Your task to perform on an android device: Search for pizza restaurants on Maps Image 0: 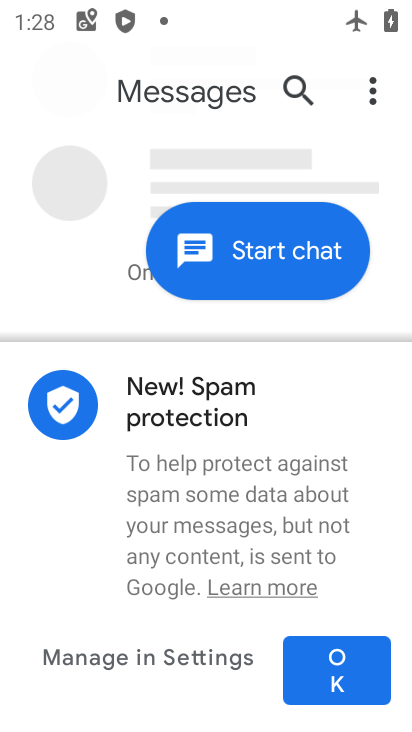
Step 0: press home button
Your task to perform on an android device: Search for pizza restaurants on Maps Image 1: 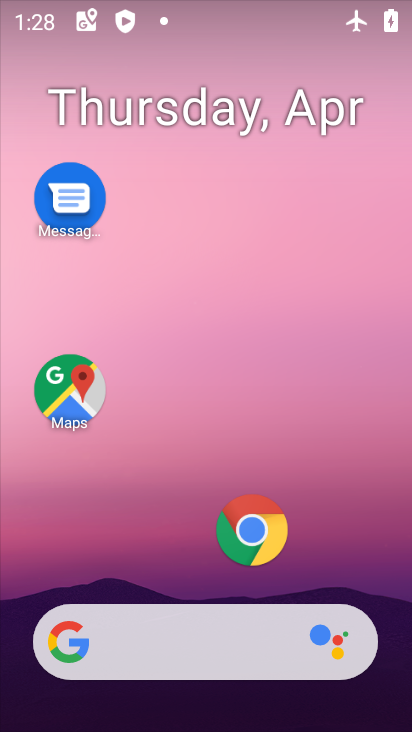
Step 1: click (81, 407)
Your task to perform on an android device: Search for pizza restaurants on Maps Image 2: 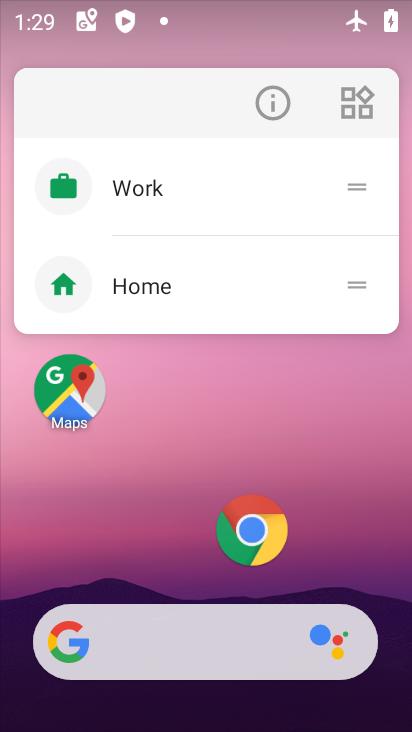
Step 2: click (69, 394)
Your task to perform on an android device: Search for pizza restaurants on Maps Image 3: 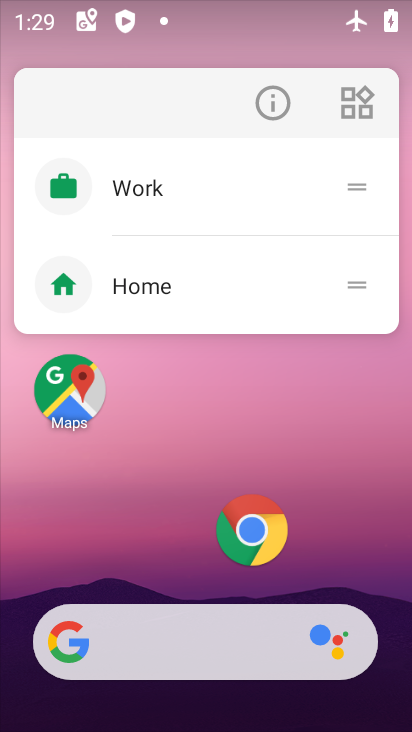
Step 3: click (69, 394)
Your task to perform on an android device: Search for pizza restaurants on Maps Image 4: 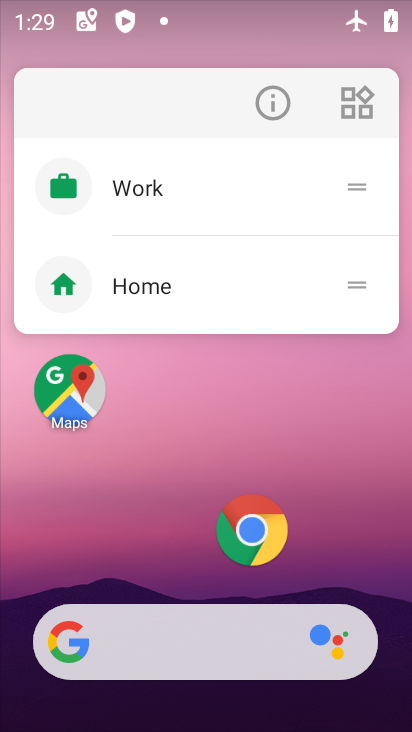
Step 4: click (69, 394)
Your task to perform on an android device: Search for pizza restaurants on Maps Image 5: 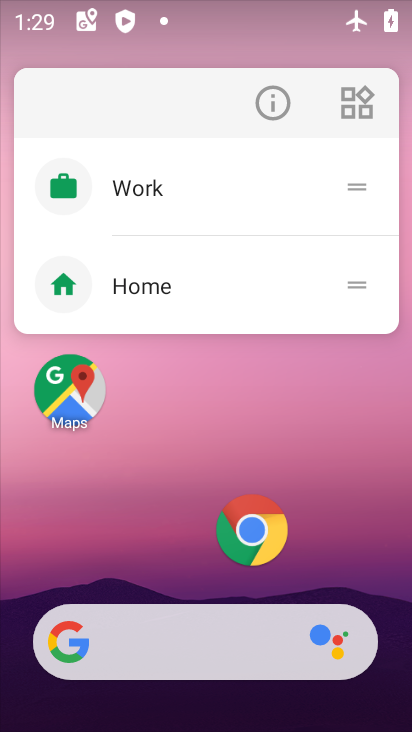
Step 5: click (68, 393)
Your task to perform on an android device: Search for pizza restaurants on Maps Image 6: 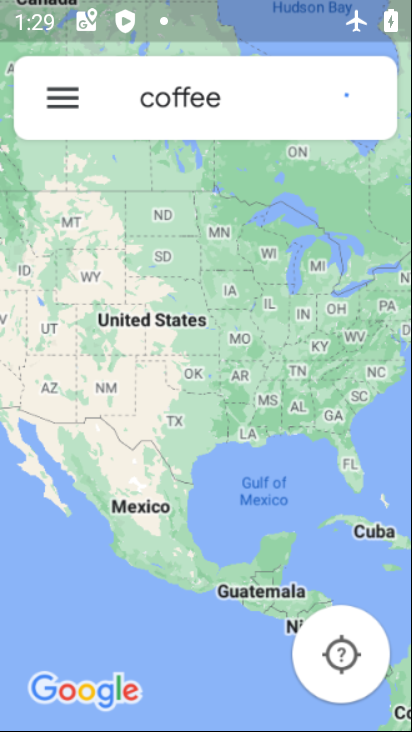
Step 6: click (159, 118)
Your task to perform on an android device: Search for pizza restaurants on Maps Image 7: 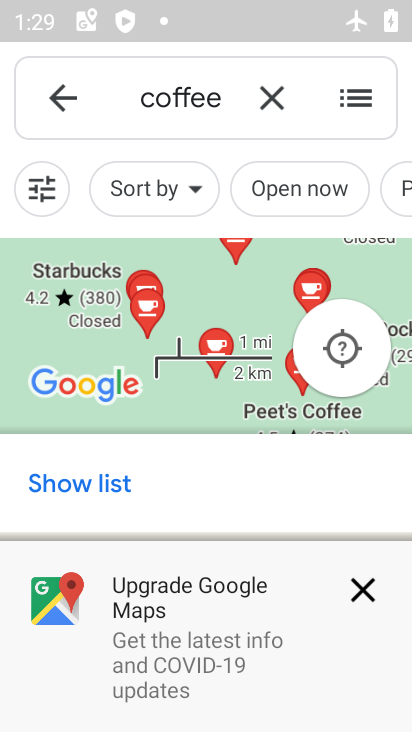
Step 7: click (271, 97)
Your task to perform on an android device: Search for pizza restaurants on Maps Image 8: 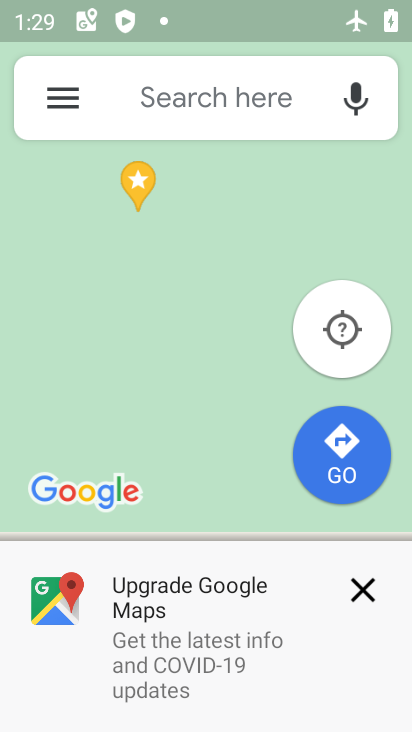
Step 8: click (350, 584)
Your task to perform on an android device: Search for pizza restaurants on Maps Image 9: 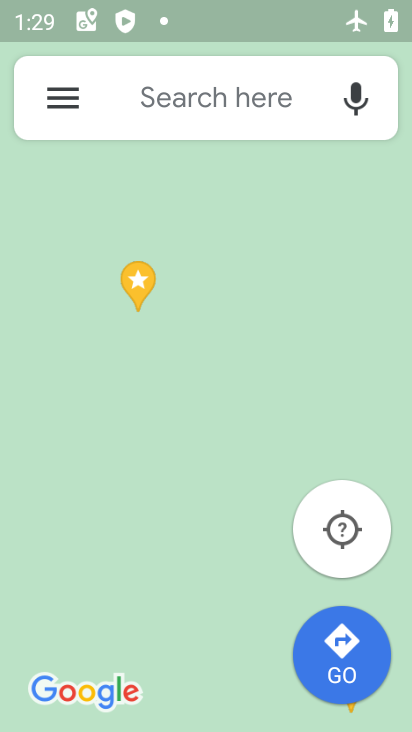
Step 9: click (240, 122)
Your task to perform on an android device: Search for pizza restaurants on Maps Image 10: 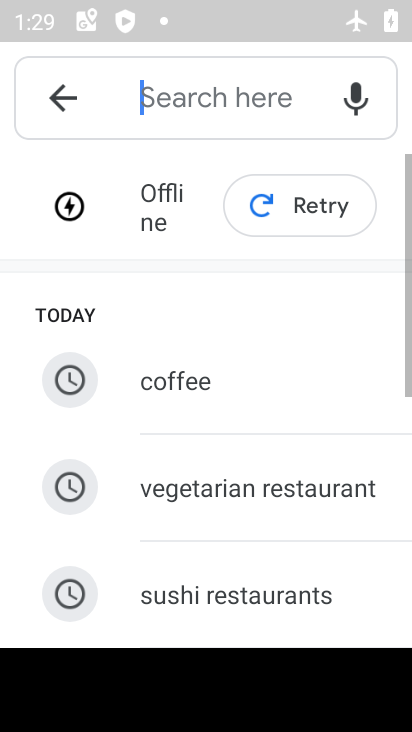
Step 10: drag from (235, 518) to (166, 136)
Your task to perform on an android device: Search for pizza restaurants on Maps Image 11: 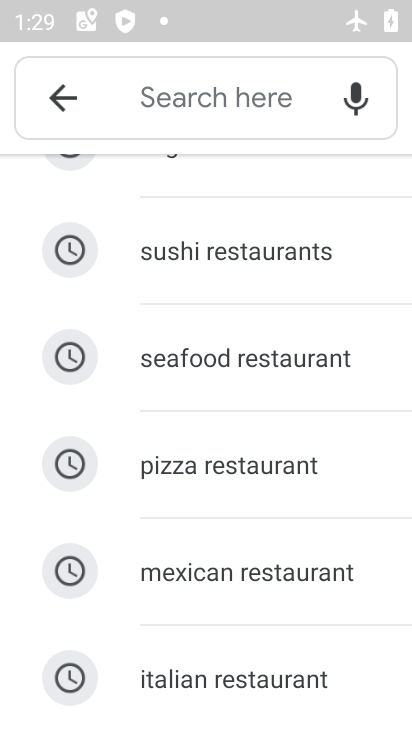
Step 11: click (184, 460)
Your task to perform on an android device: Search for pizza restaurants on Maps Image 12: 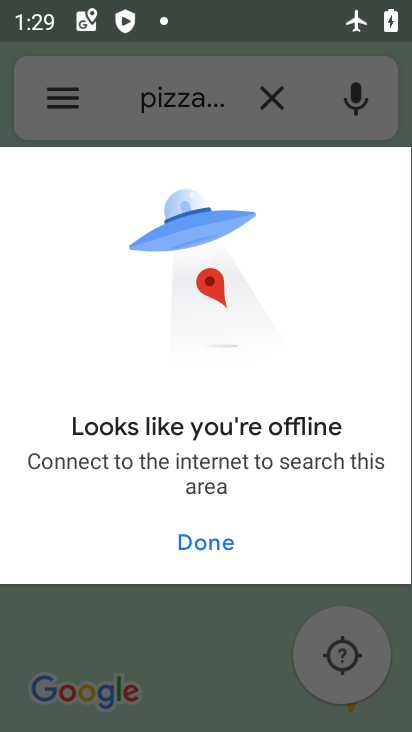
Step 12: click (211, 530)
Your task to perform on an android device: Search for pizza restaurants on Maps Image 13: 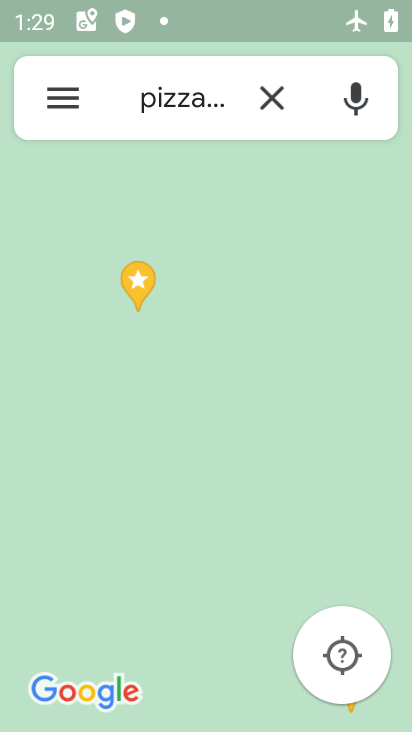
Step 13: task complete